Your task to perform on an android device: open app "Airtel Thanks" (install if not already installed) and go to login screen Image 0: 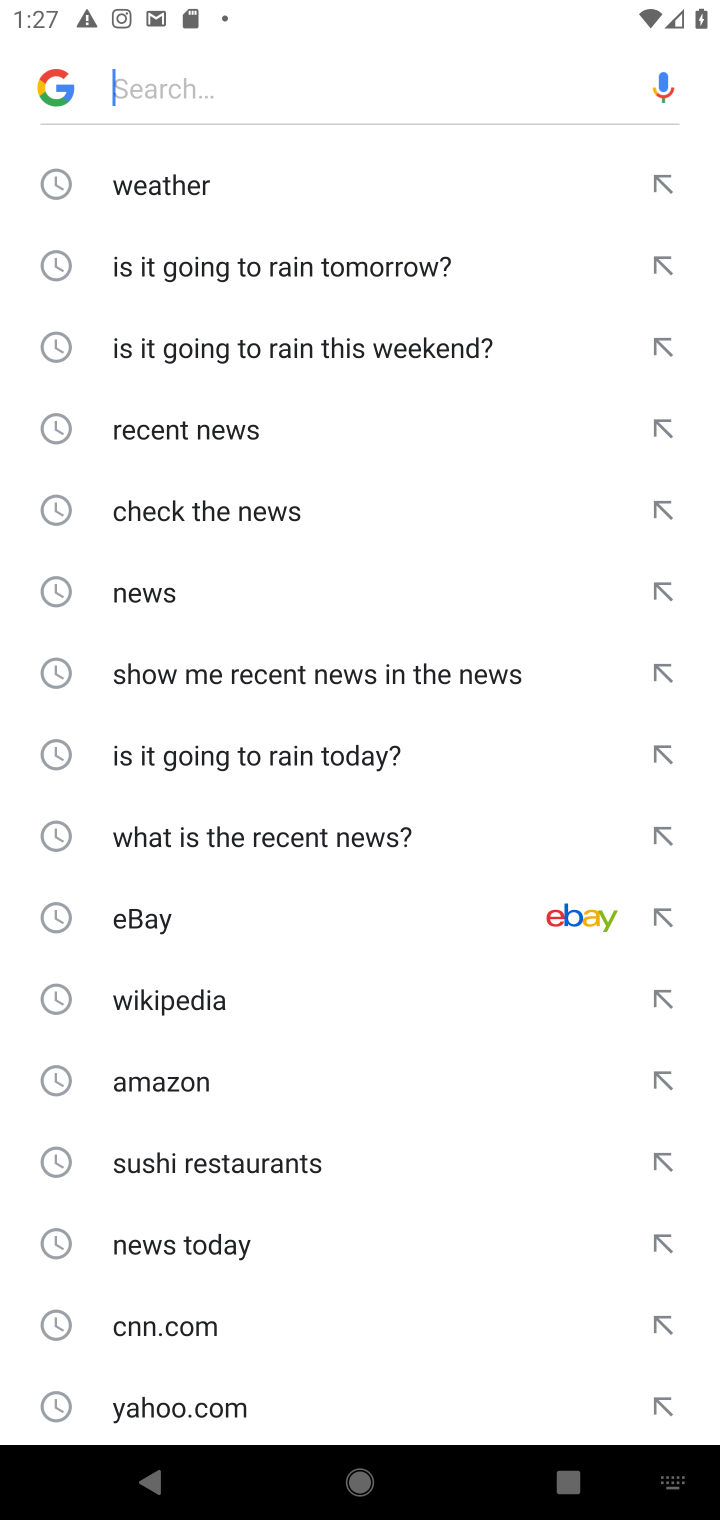
Step 0: press home button
Your task to perform on an android device: open app "Airtel Thanks" (install if not already installed) and go to login screen Image 1: 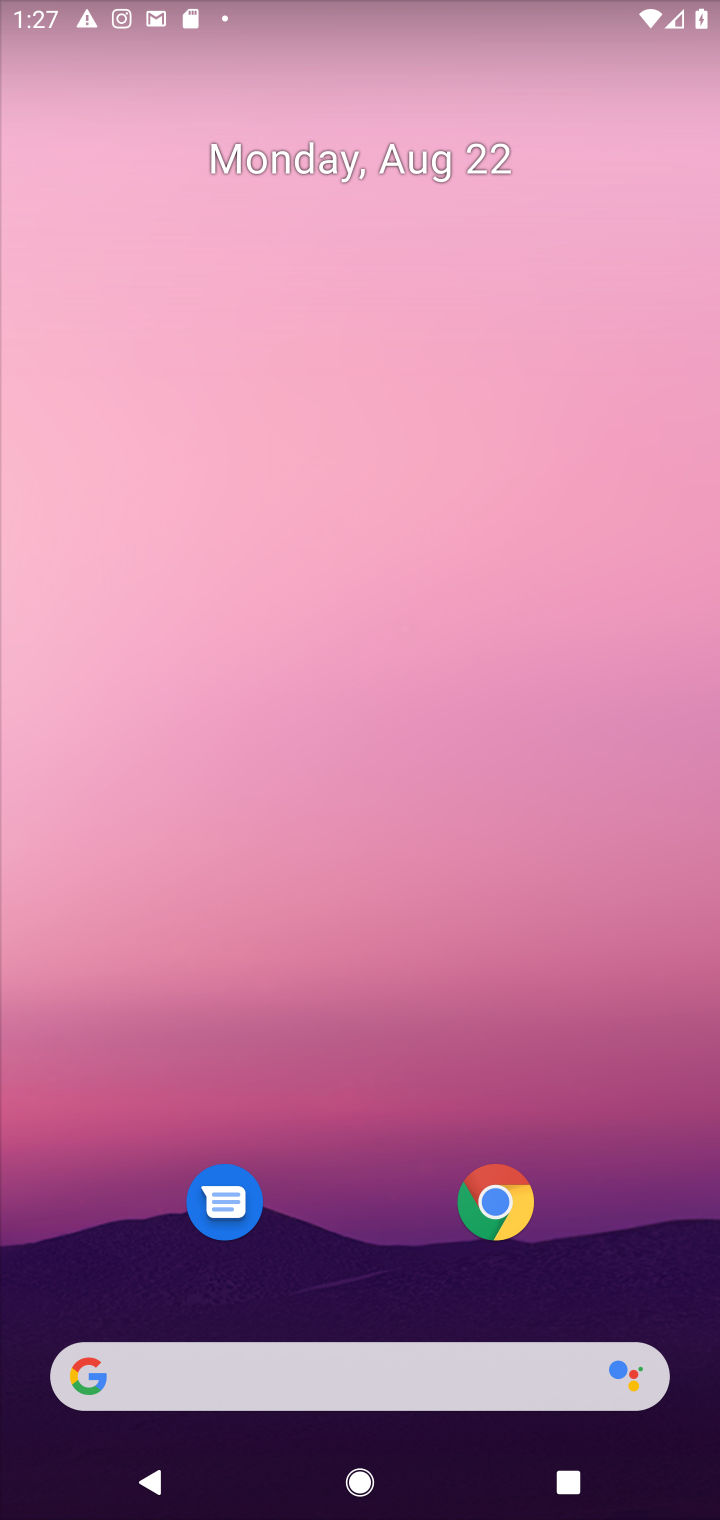
Step 1: click (351, 124)
Your task to perform on an android device: open app "Airtel Thanks" (install if not already installed) and go to login screen Image 2: 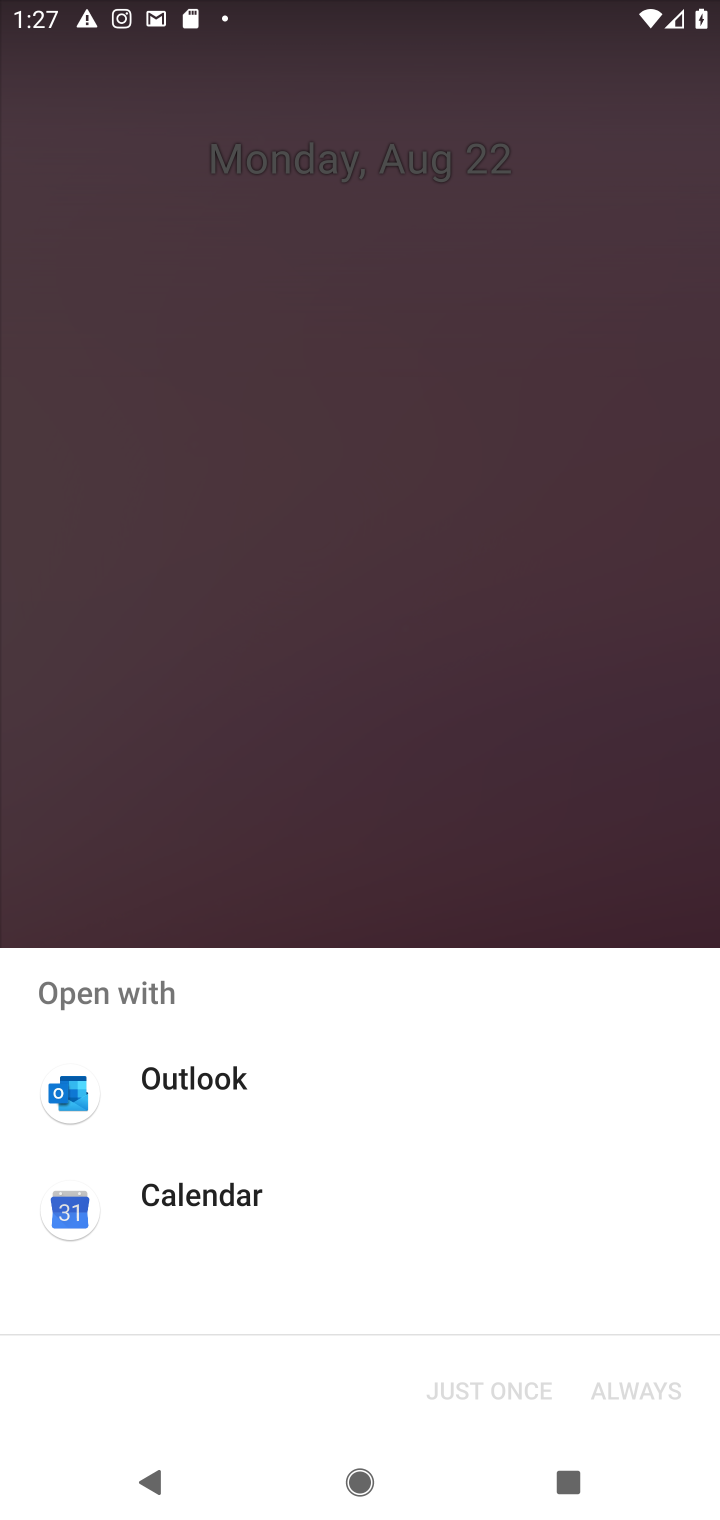
Step 2: press home button
Your task to perform on an android device: open app "Airtel Thanks" (install if not already installed) and go to login screen Image 3: 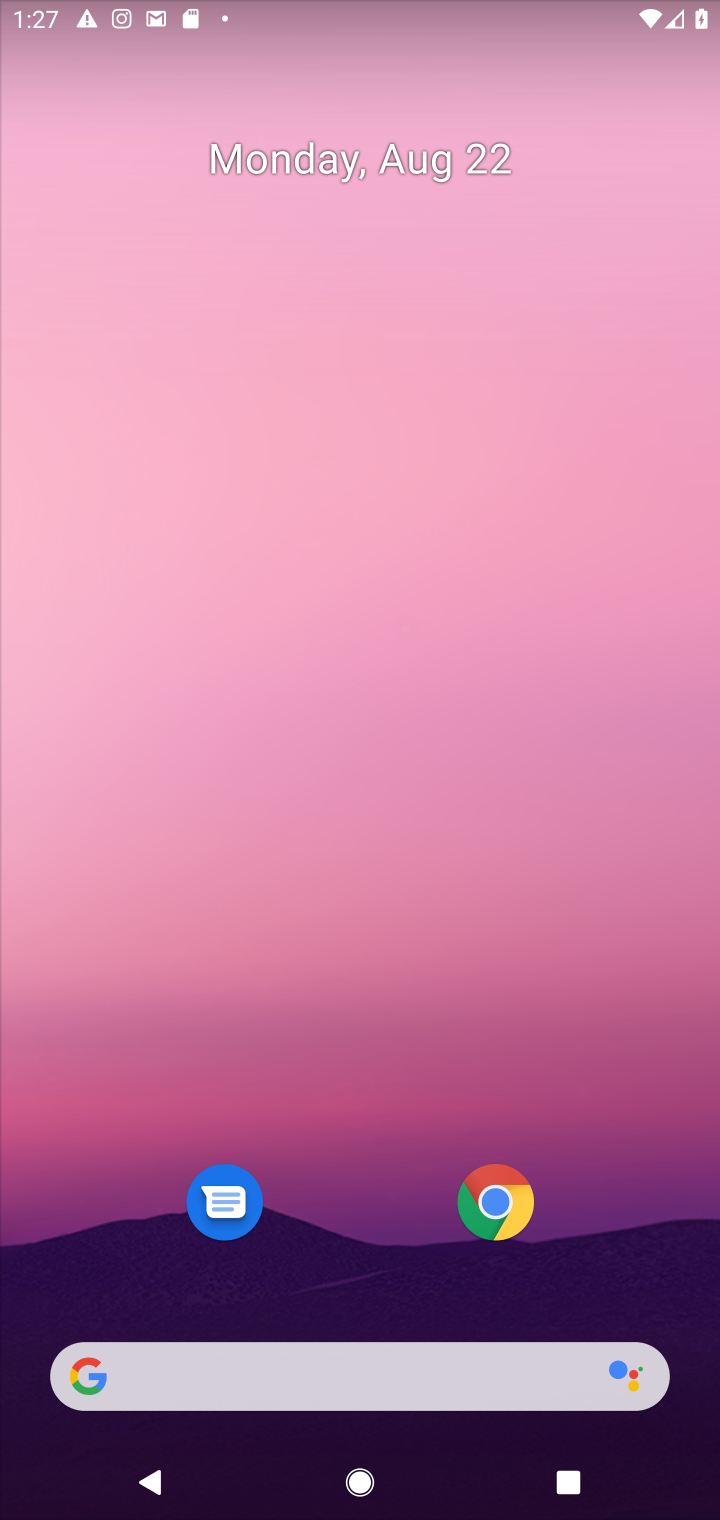
Step 3: drag from (353, 851) to (347, 86)
Your task to perform on an android device: open app "Airtel Thanks" (install if not already installed) and go to login screen Image 4: 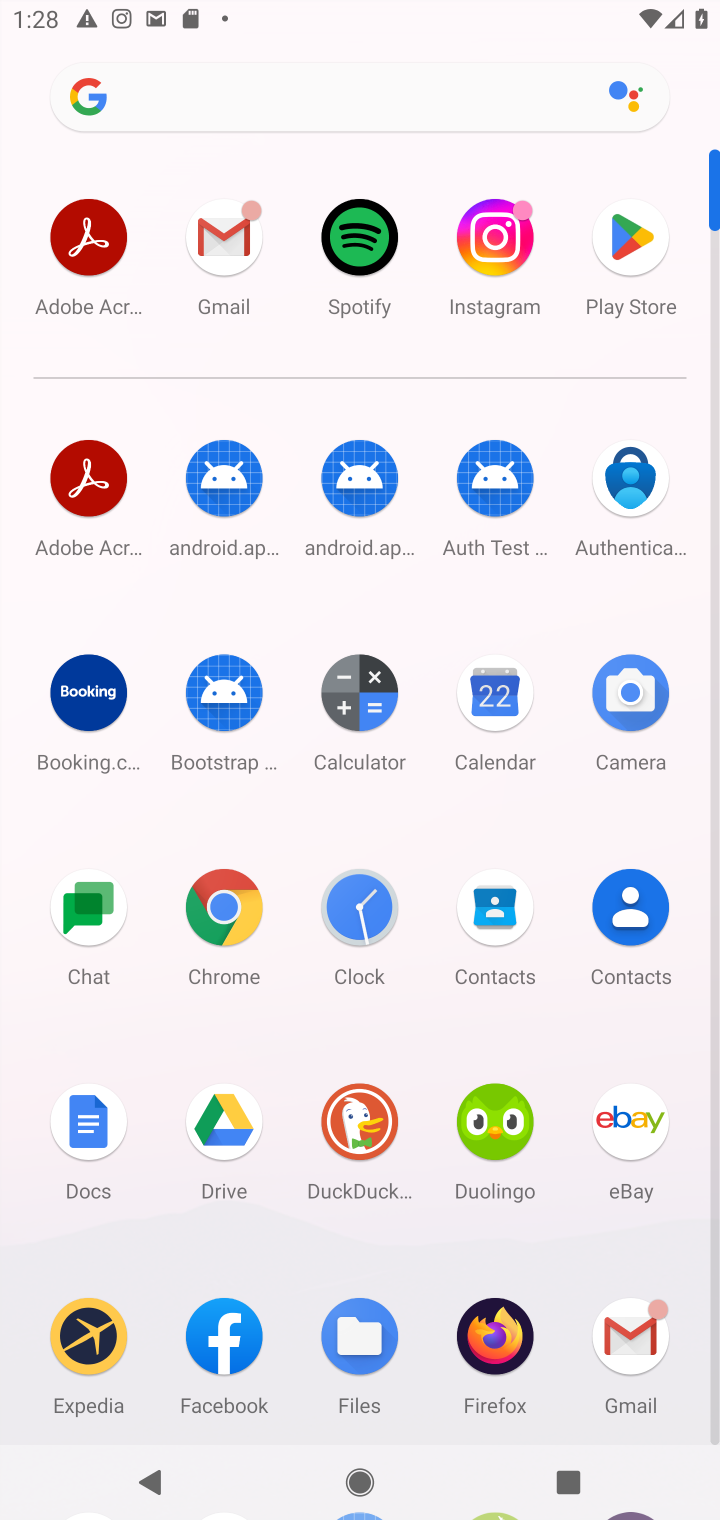
Step 4: click (622, 233)
Your task to perform on an android device: open app "Airtel Thanks" (install if not already installed) and go to login screen Image 5: 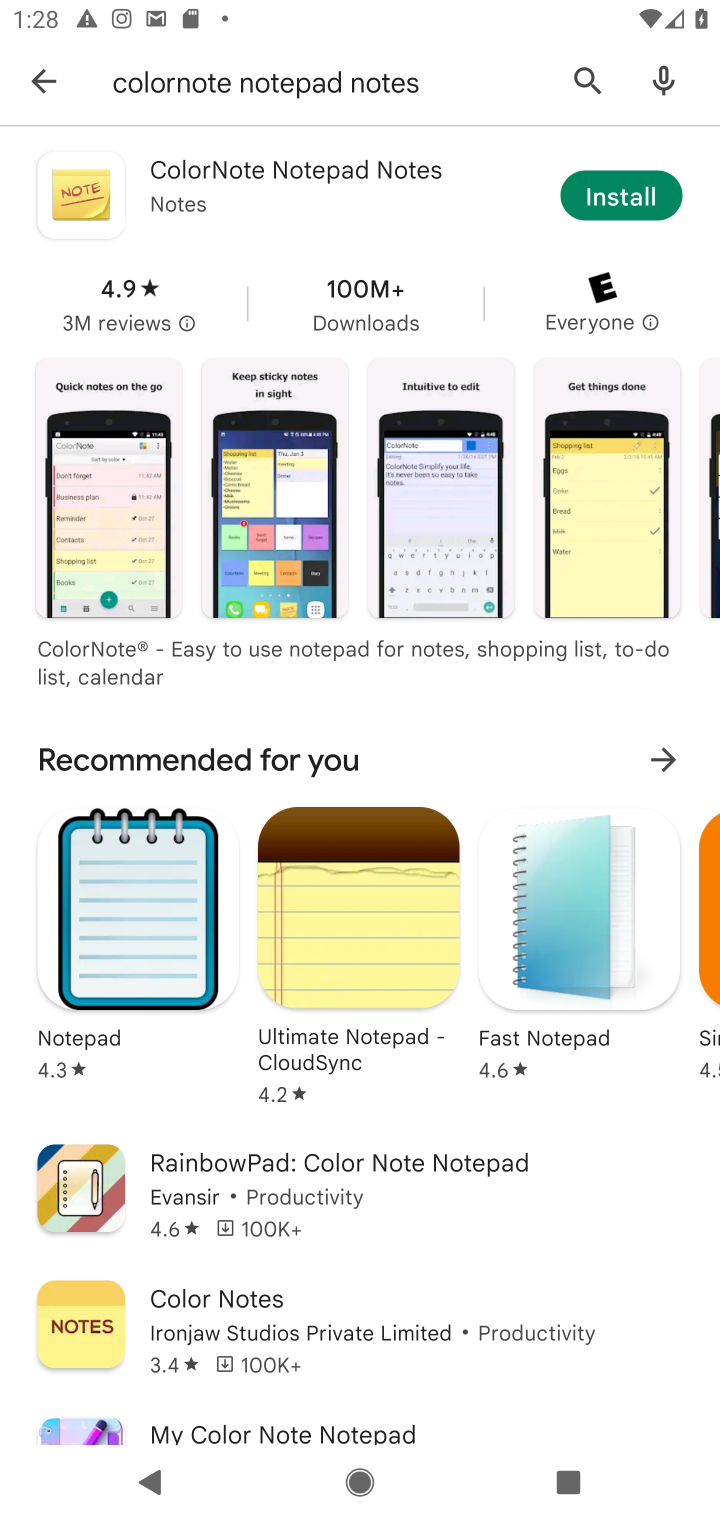
Step 5: click (580, 69)
Your task to perform on an android device: open app "Airtel Thanks" (install if not already installed) and go to login screen Image 6: 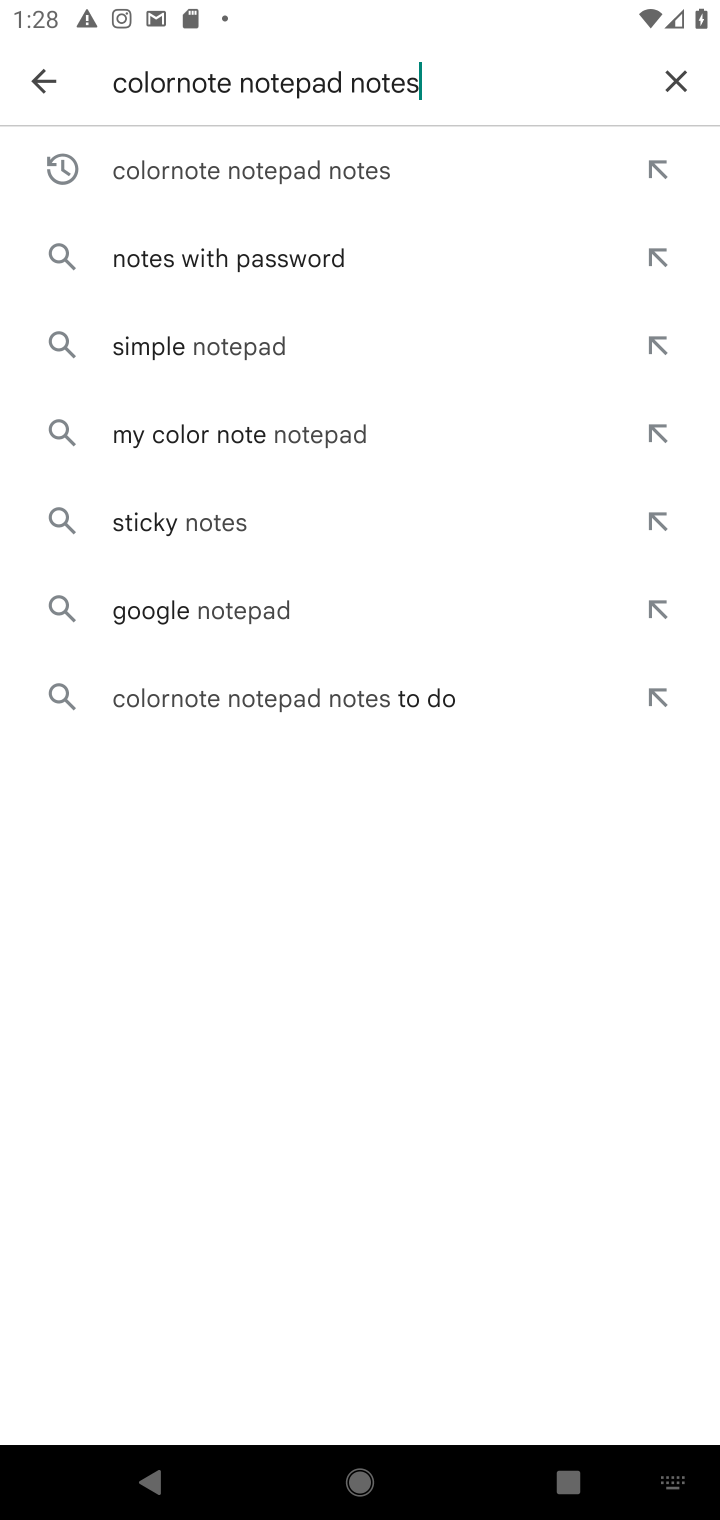
Step 6: click (669, 77)
Your task to perform on an android device: open app "Airtel Thanks" (install if not already installed) and go to login screen Image 7: 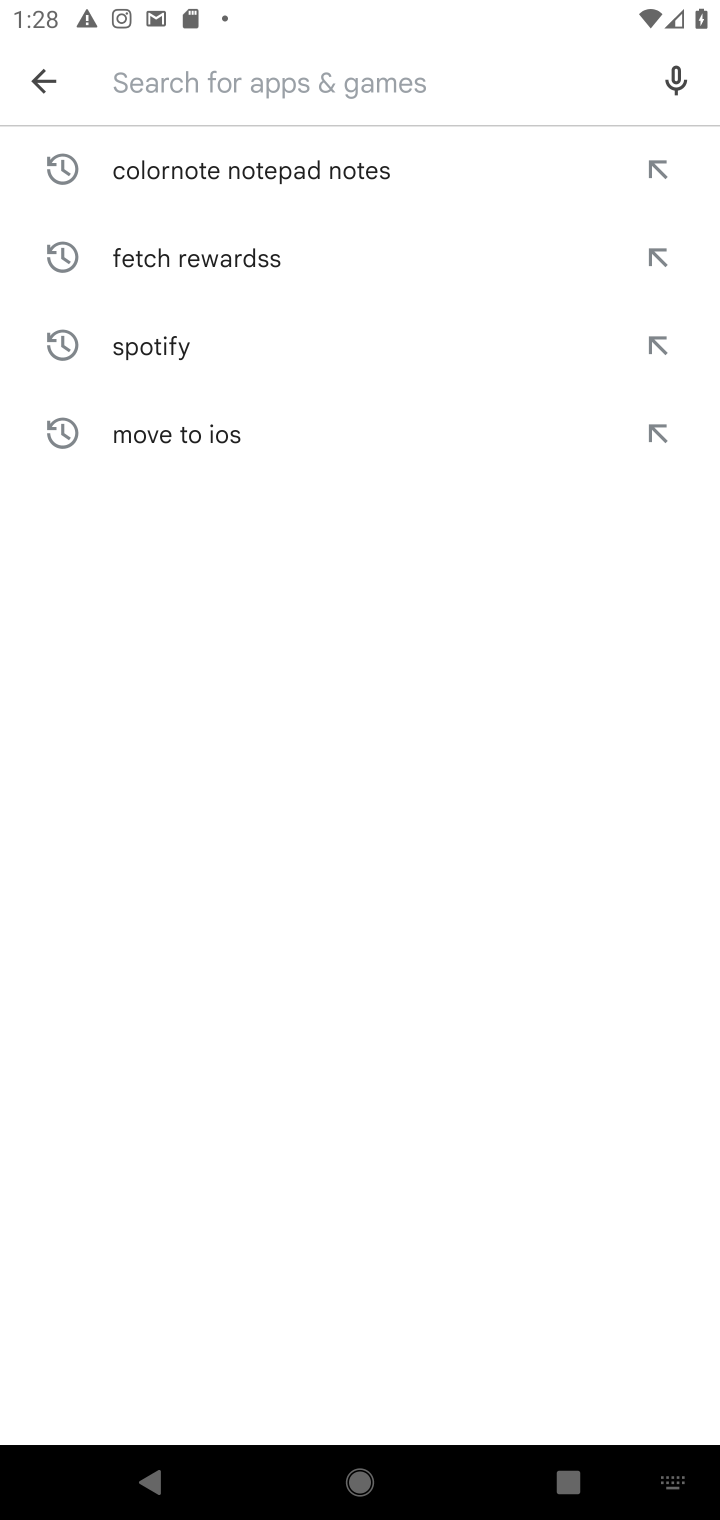
Step 7: type "Airtel Thanks"
Your task to perform on an android device: open app "Airtel Thanks" (install if not already installed) and go to login screen Image 8: 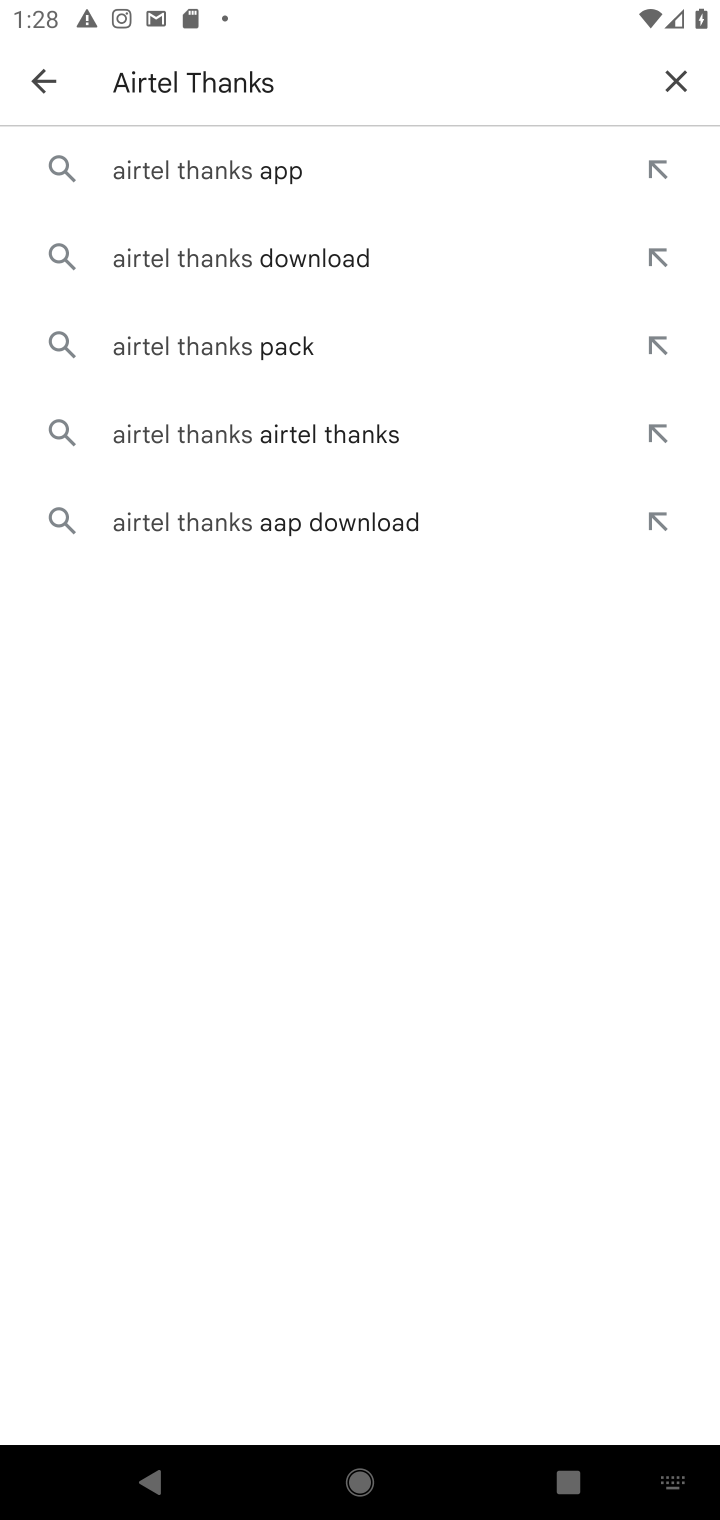
Step 8: click (193, 174)
Your task to perform on an android device: open app "Airtel Thanks" (install if not already installed) and go to login screen Image 9: 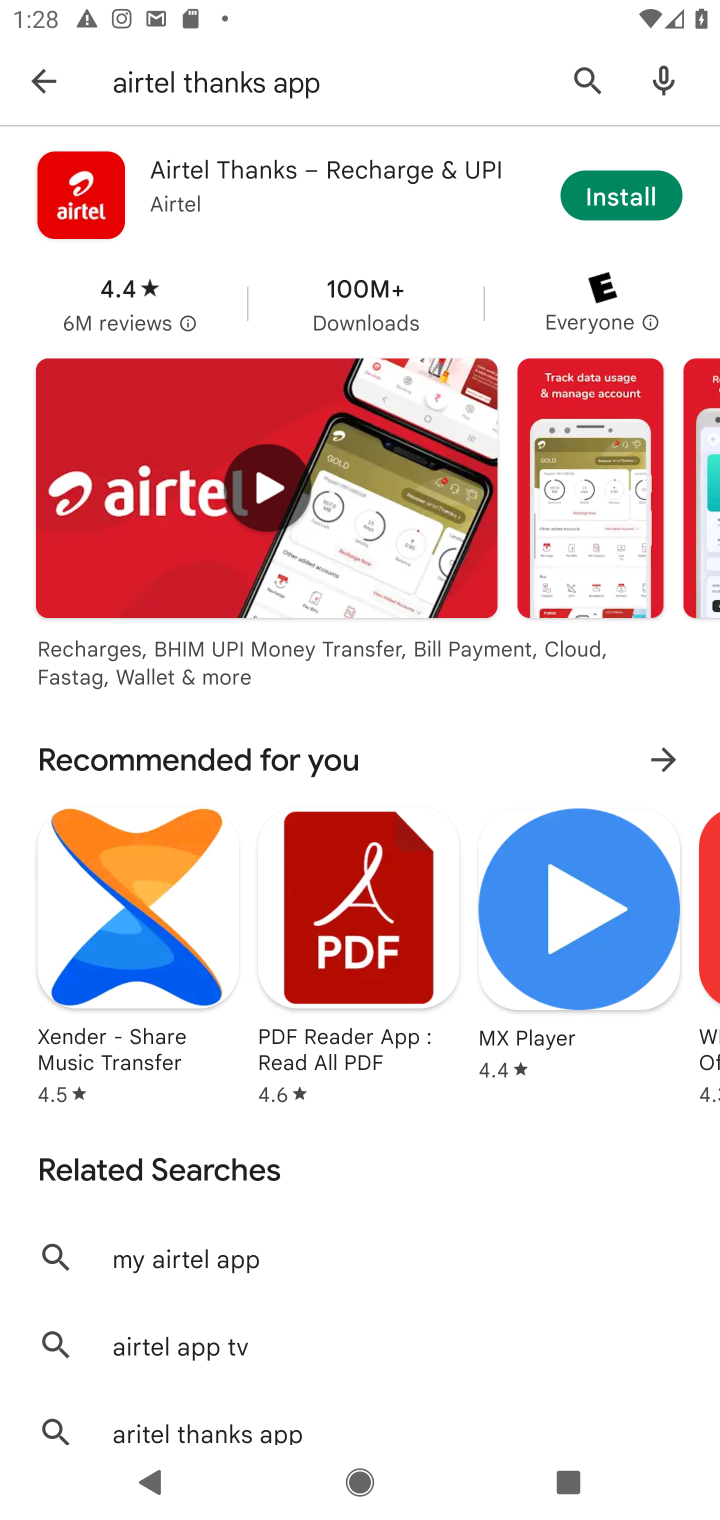
Step 9: click (625, 187)
Your task to perform on an android device: open app "Airtel Thanks" (install if not already installed) and go to login screen Image 10: 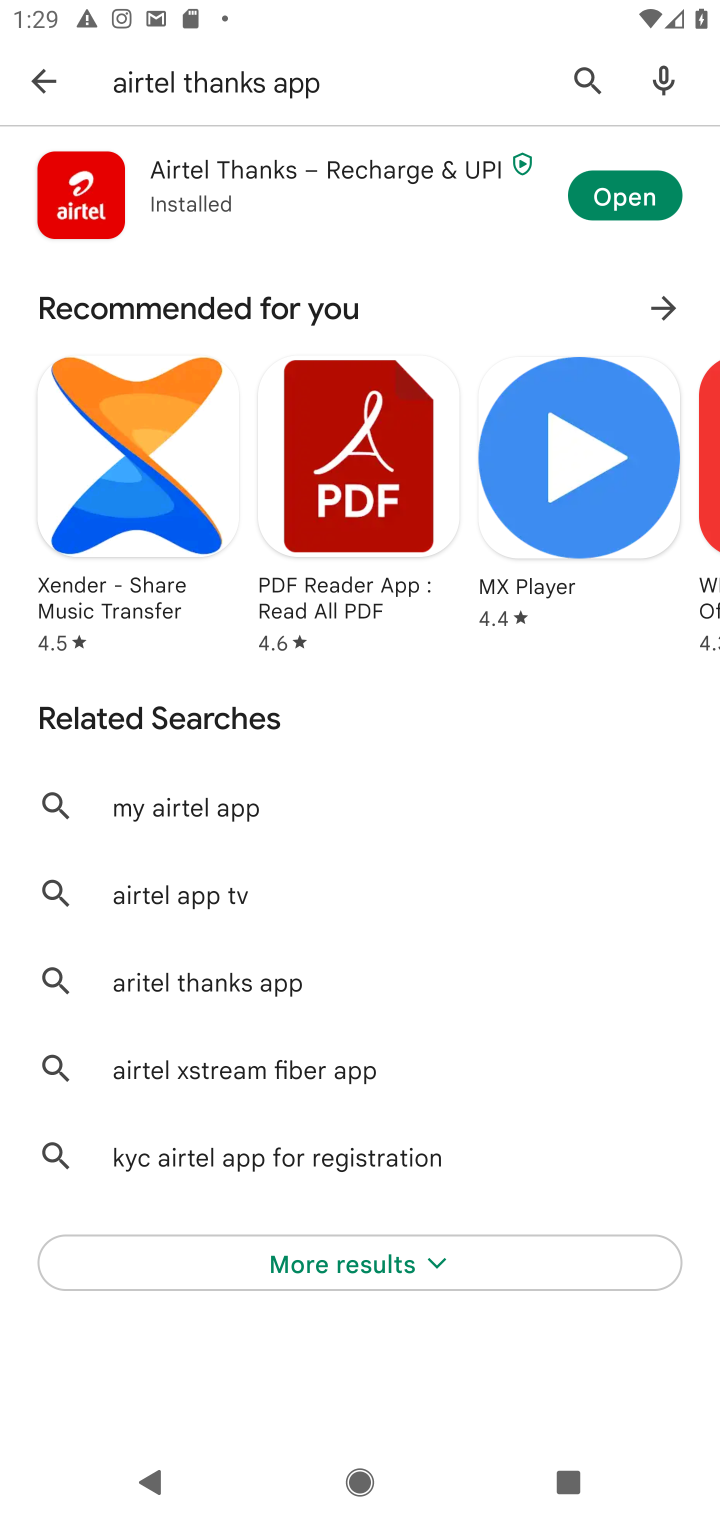
Step 10: click (626, 197)
Your task to perform on an android device: open app "Airtel Thanks" (install if not already installed) and go to login screen Image 11: 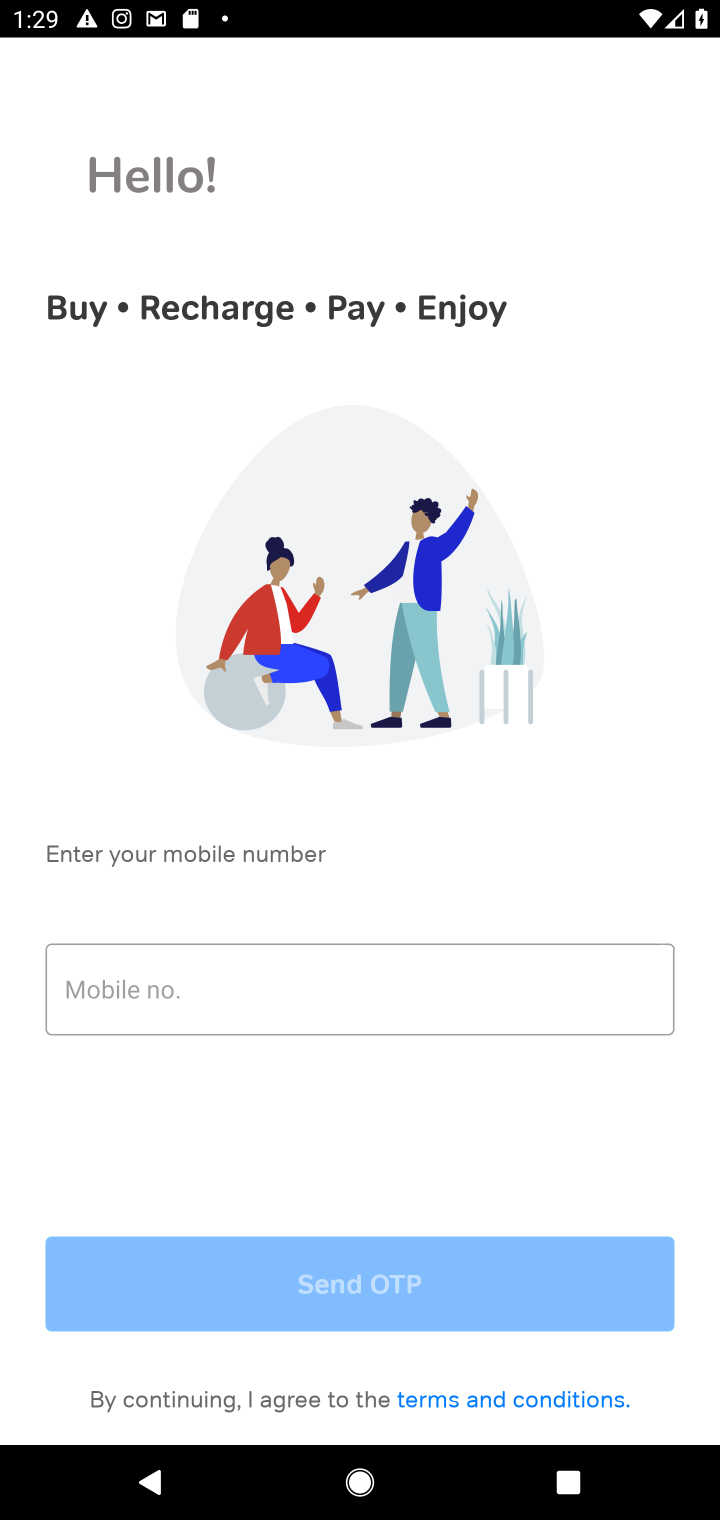
Step 11: task complete